Your task to perform on an android device: show emergency info Image 0: 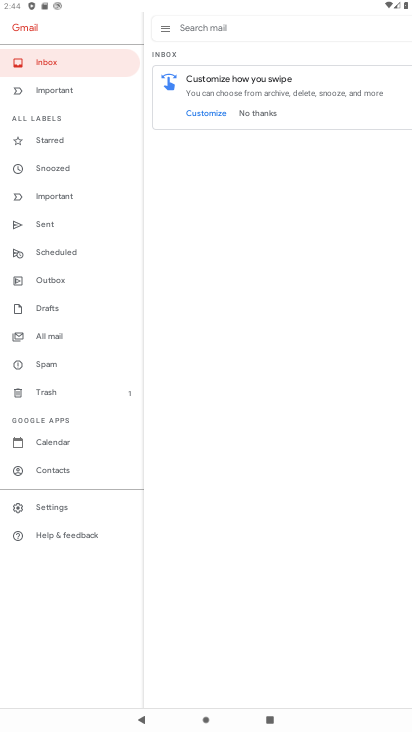
Step 0: press home button
Your task to perform on an android device: show emergency info Image 1: 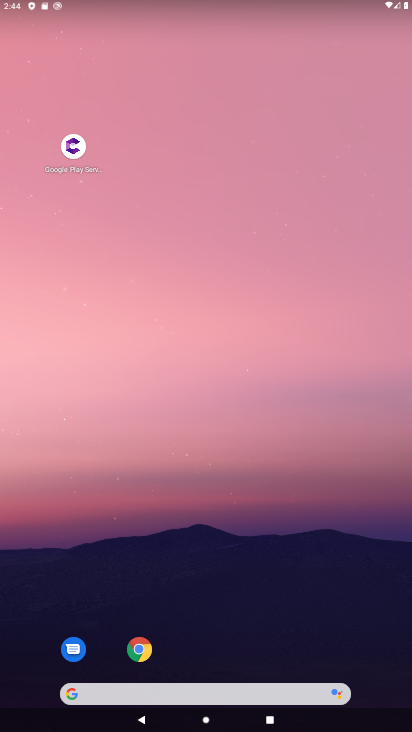
Step 1: drag from (263, 617) to (234, 57)
Your task to perform on an android device: show emergency info Image 2: 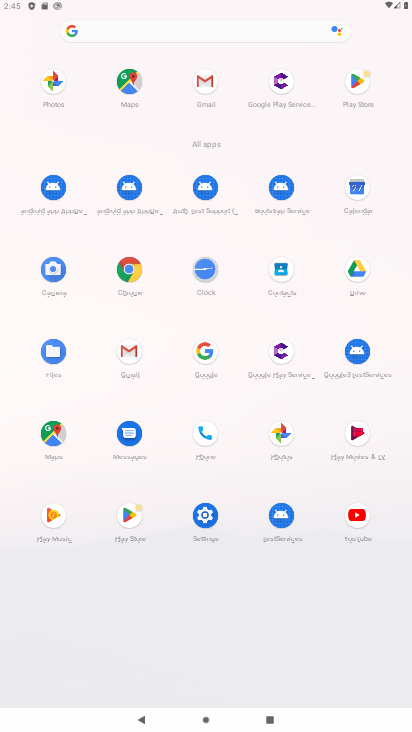
Step 2: click (210, 517)
Your task to perform on an android device: show emergency info Image 3: 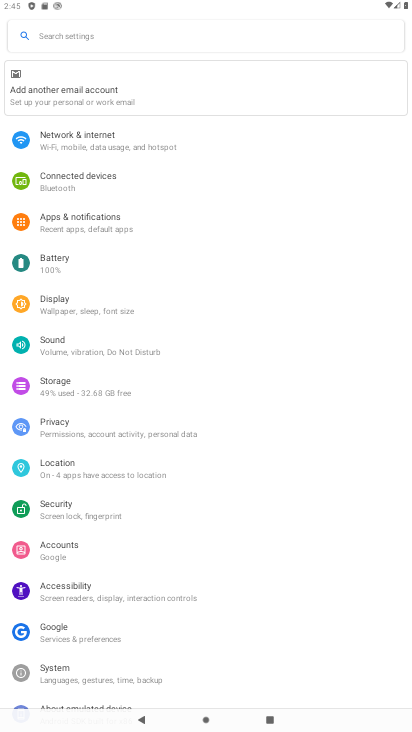
Step 3: drag from (128, 584) to (137, 367)
Your task to perform on an android device: show emergency info Image 4: 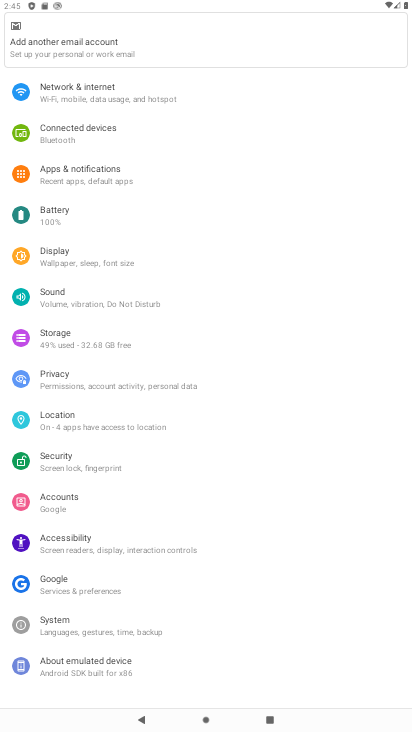
Step 4: click (99, 659)
Your task to perform on an android device: show emergency info Image 5: 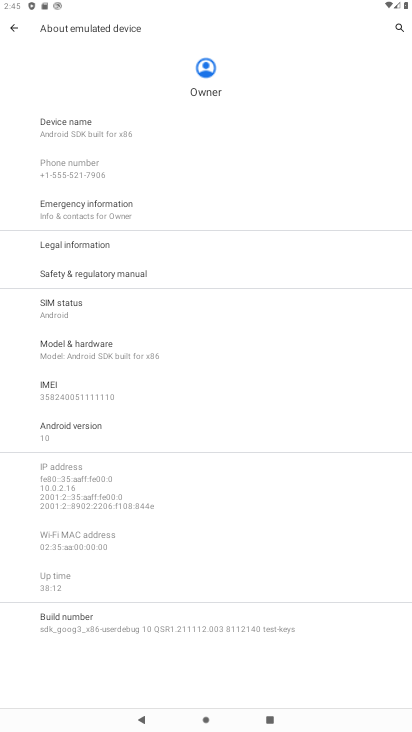
Step 5: click (78, 200)
Your task to perform on an android device: show emergency info Image 6: 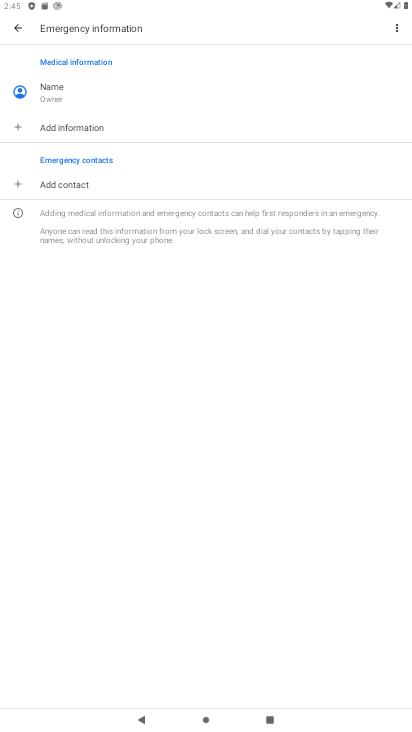
Step 6: task complete